Your task to perform on an android device: turn off sleep mode Image 0: 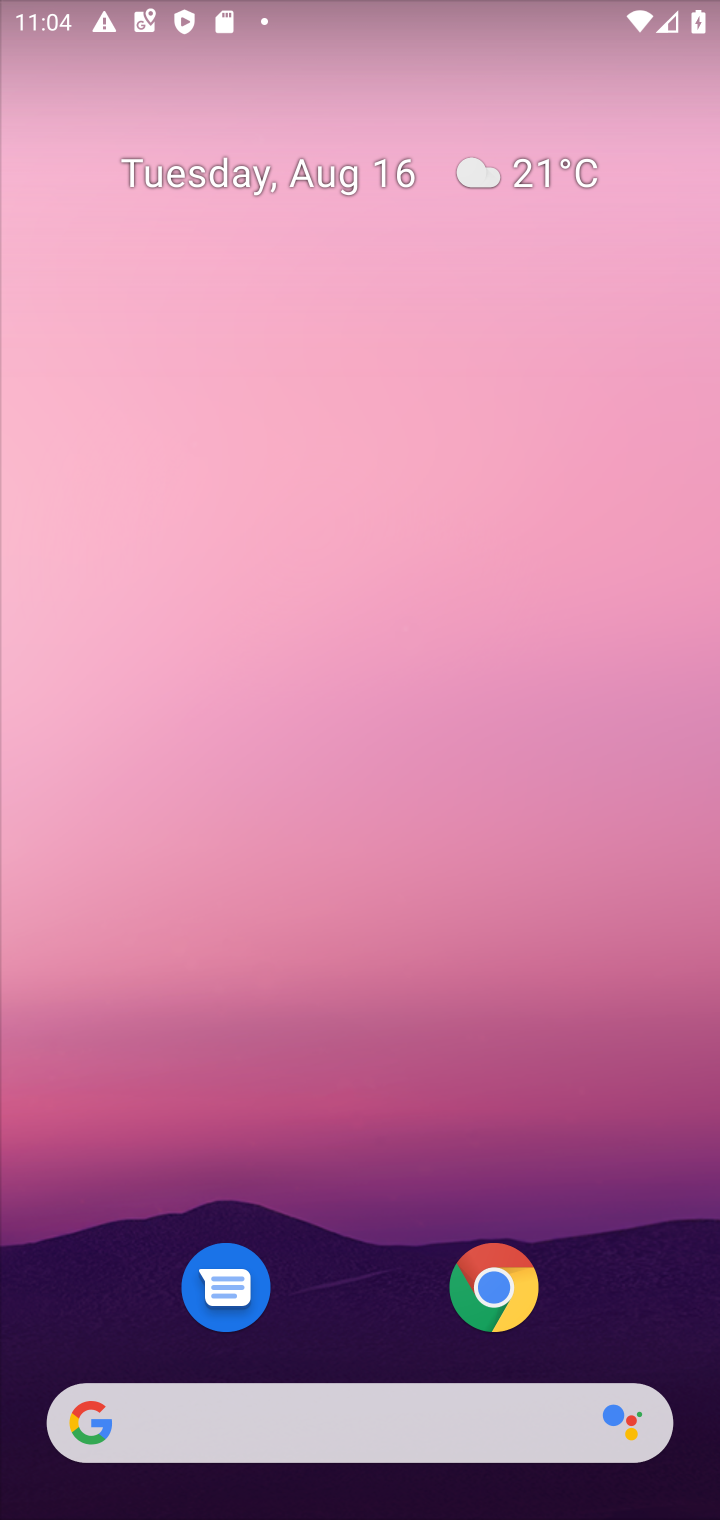
Step 0: drag from (670, 1171) to (579, 325)
Your task to perform on an android device: turn off sleep mode Image 1: 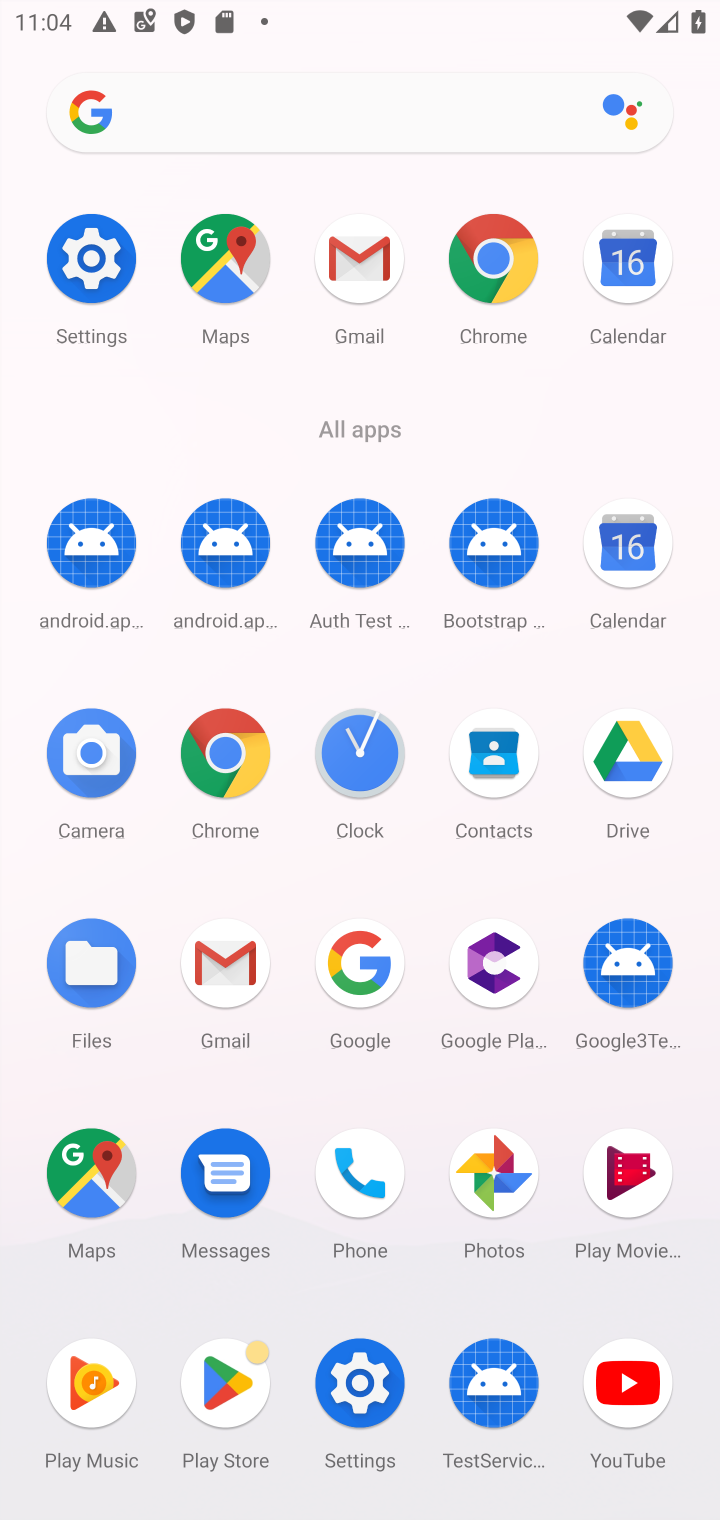
Step 1: click (363, 1388)
Your task to perform on an android device: turn off sleep mode Image 2: 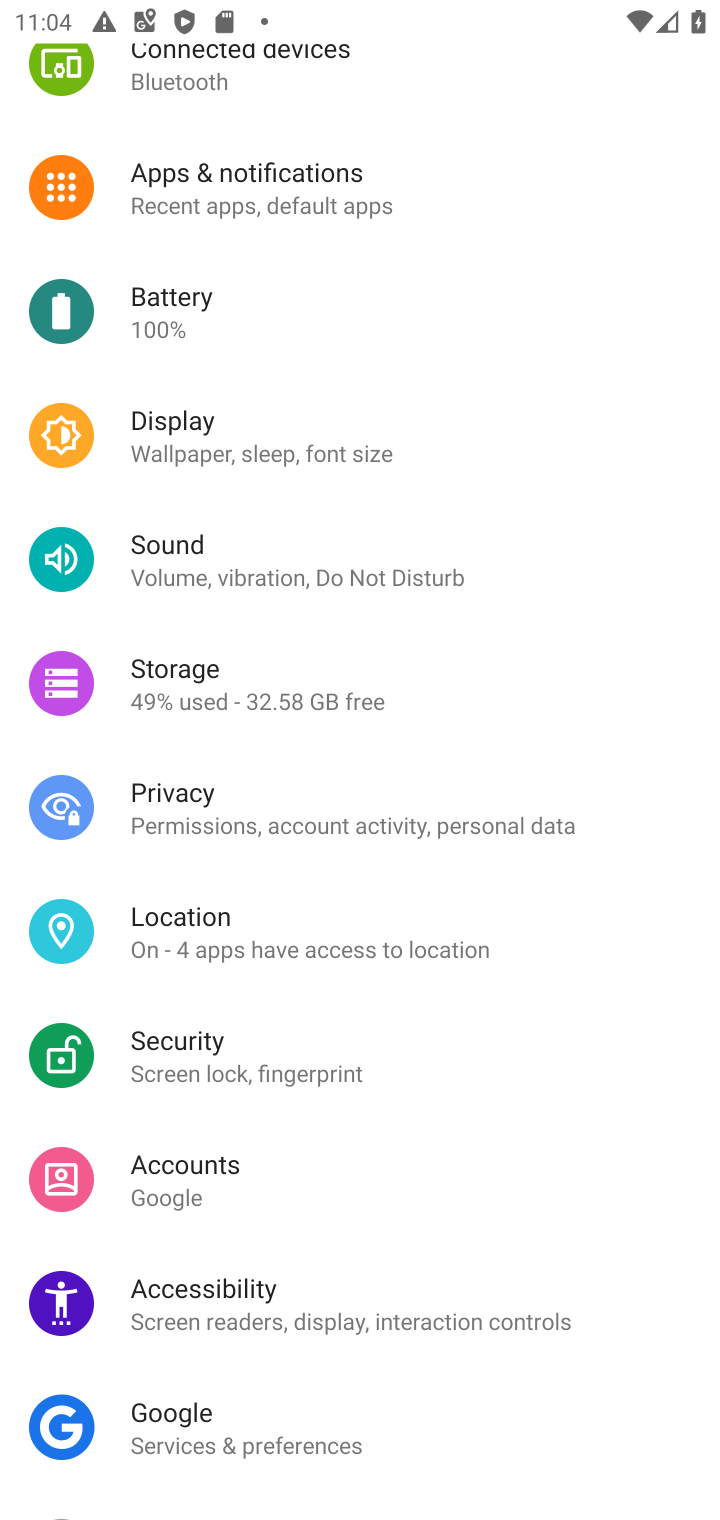
Step 2: click (183, 423)
Your task to perform on an android device: turn off sleep mode Image 3: 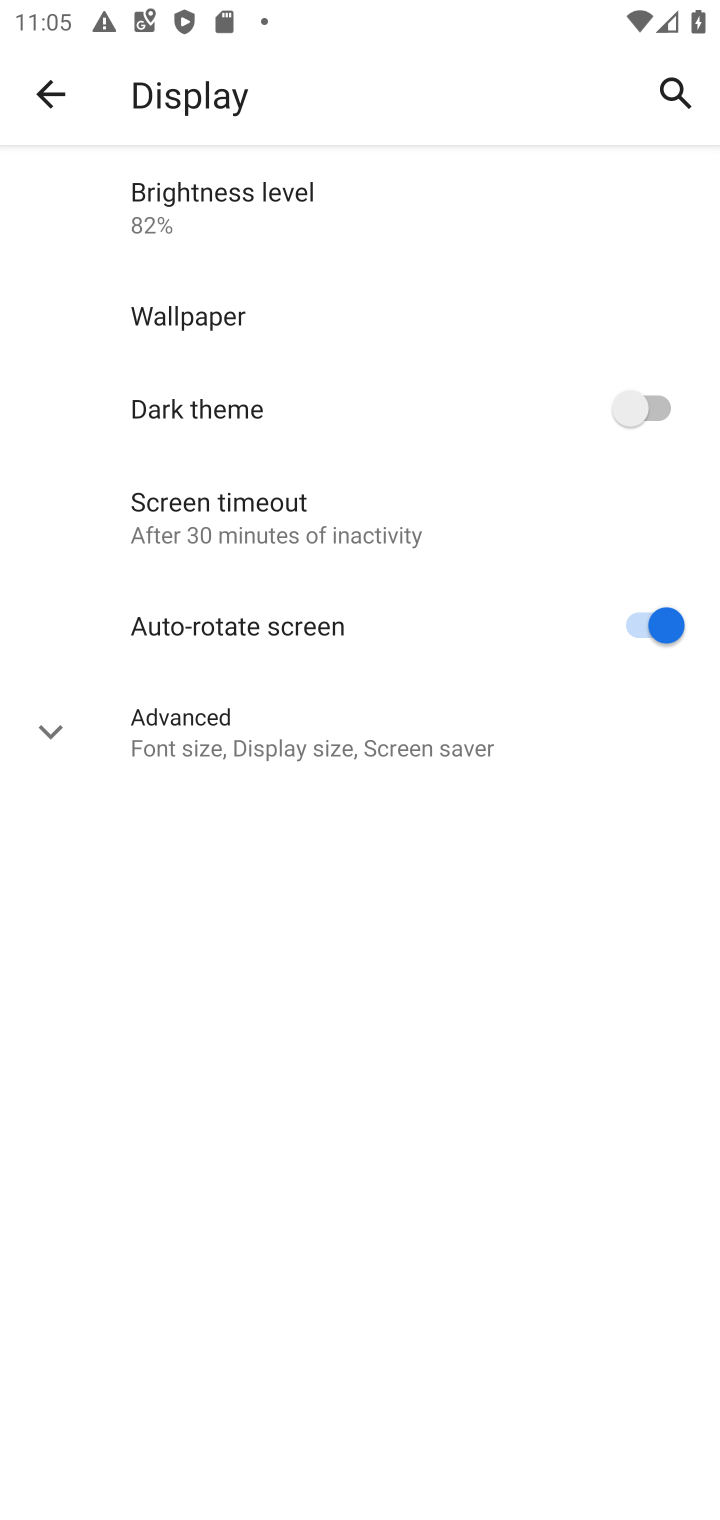
Step 3: click (55, 743)
Your task to perform on an android device: turn off sleep mode Image 4: 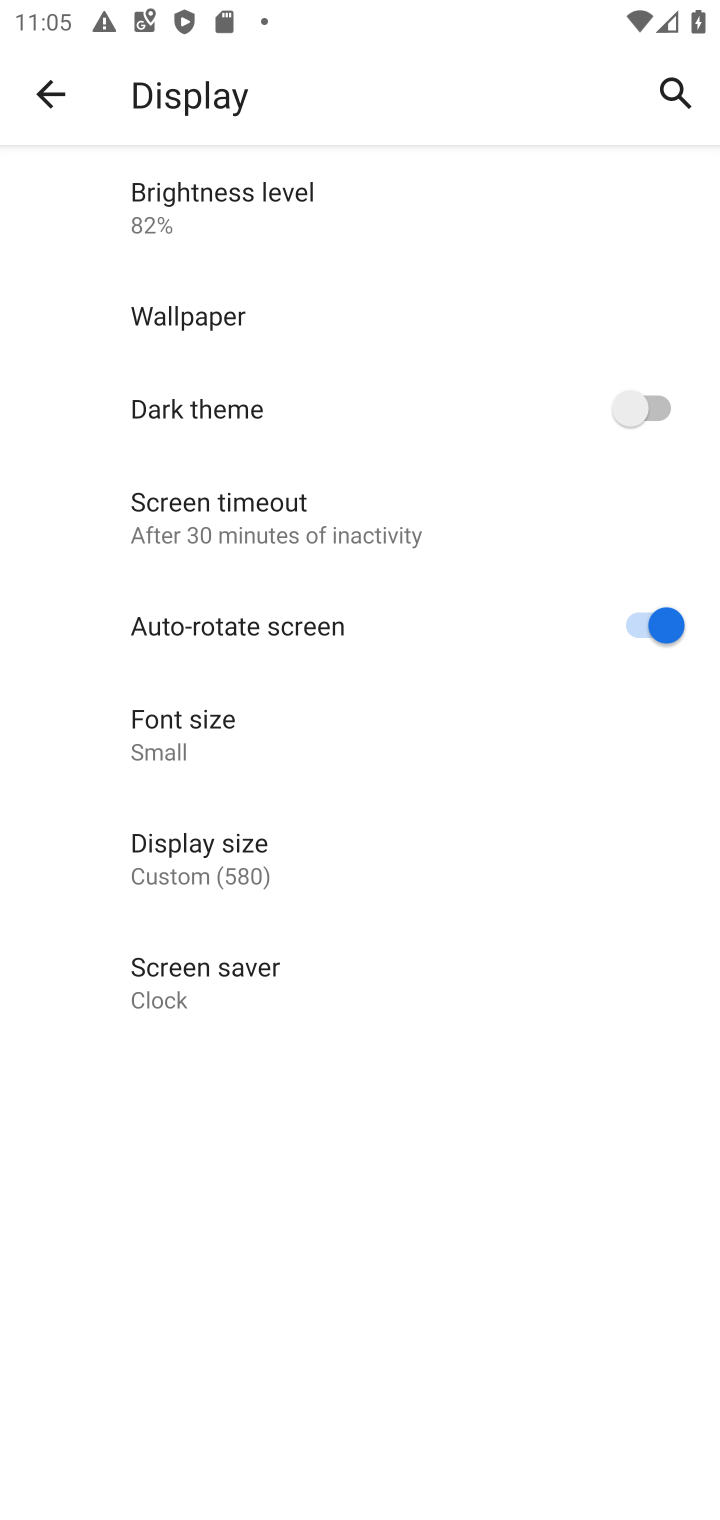
Step 4: task complete